Your task to perform on an android device: Open calendar and show me the third week of next month Image 0: 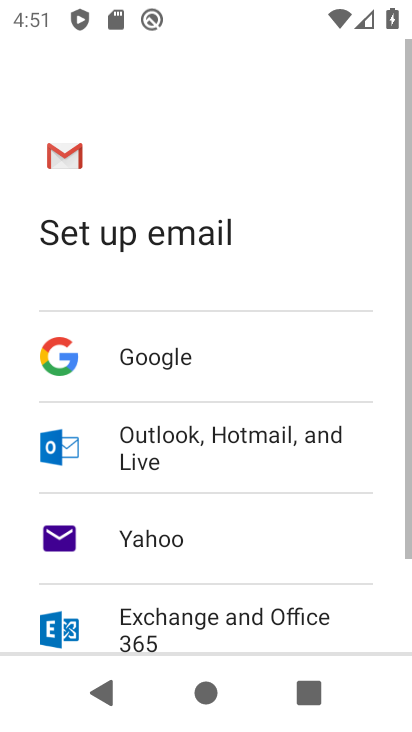
Step 0: press home button
Your task to perform on an android device: Open calendar and show me the third week of next month Image 1: 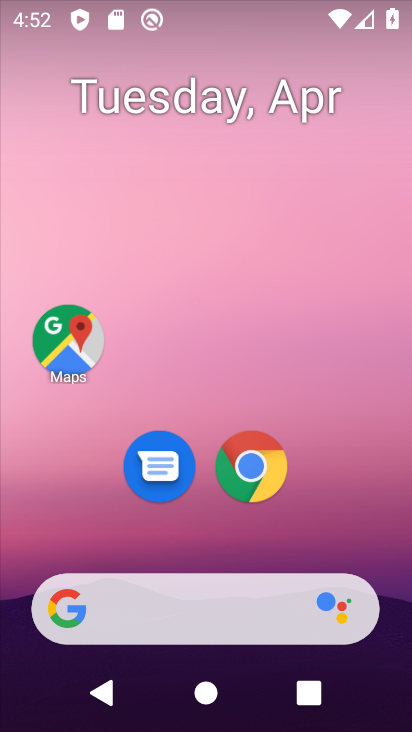
Step 1: click (208, 115)
Your task to perform on an android device: Open calendar and show me the third week of next month Image 2: 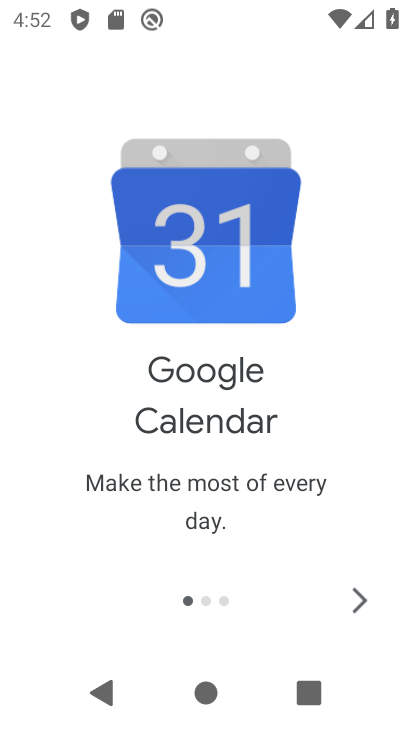
Step 2: click (358, 613)
Your task to perform on an android device: Open calendar and show me the third week of next month Image 3: 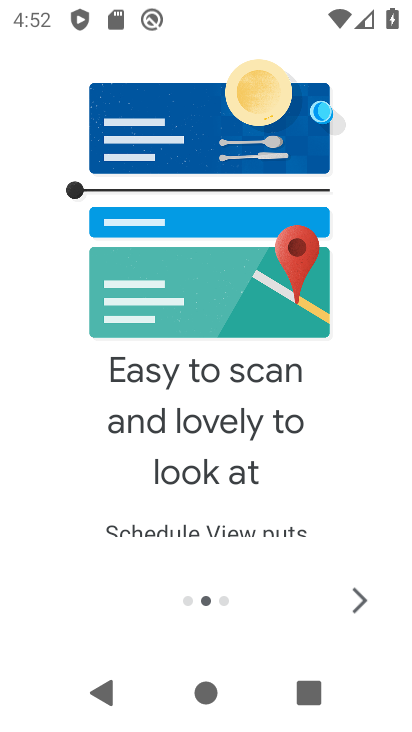
Step 3: click (358, 613)
Your task to perform on an android device: Open calendar and show me the third week of next month Image 4: 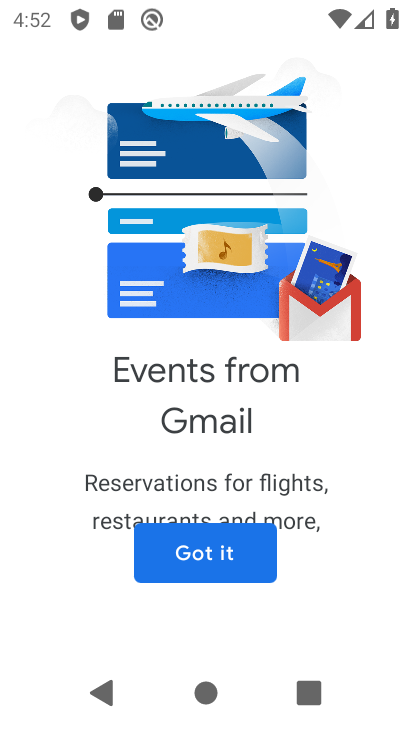
Step 4: click (221, 564)
Your task to perform on an android device: Open calendar and show me the third week of next month Image 5: 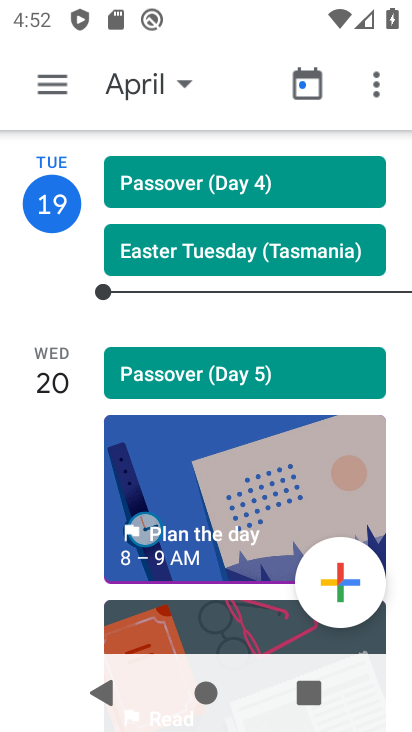
Step 5: click (130, 98)
Your task to perform on an android device: Open calendar and show me the third week of next month Image 6: 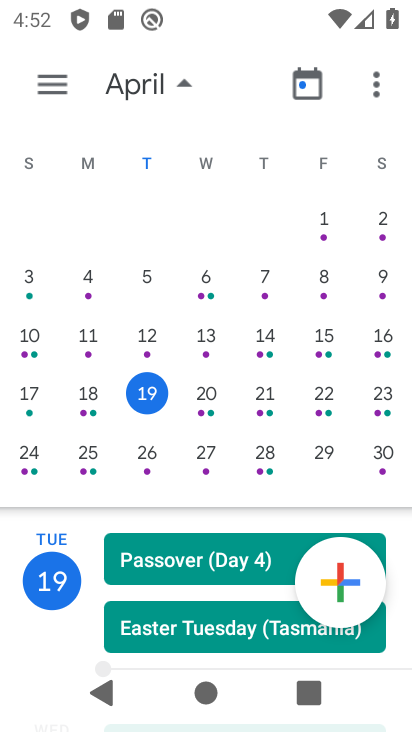
Step 6: drag from (361, 365) to (46, 333)
Your task to perform on an android device: Open calendar and show me the third week of next month Image 7: 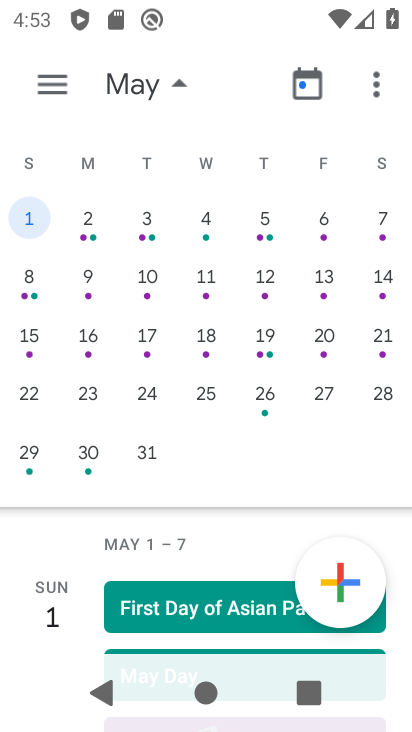
Step 7: click (204, 329)
Your task to perform on an android device: Open calendar and show me the third week of next month Image 8: 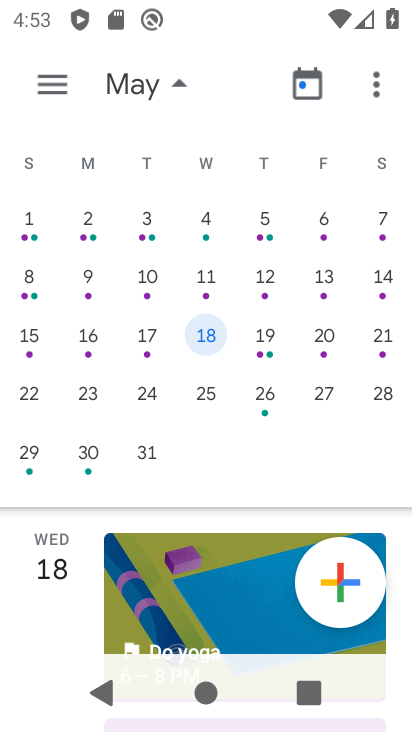
Step 8: task complete